Your task to perform on an android device: check battery use Image 0: 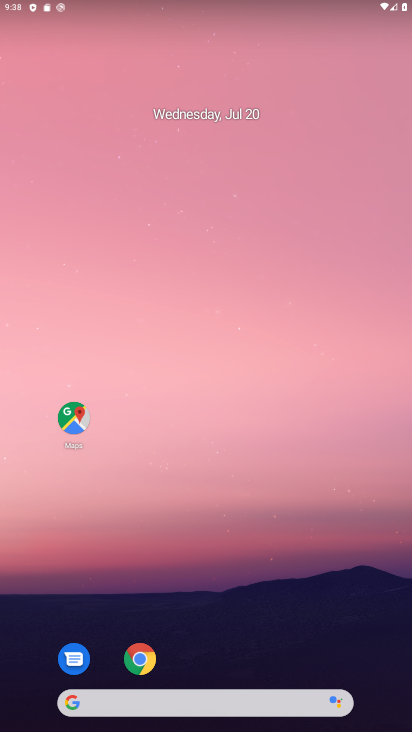
Step 0: drag from (251, 632) to (227, 163)
Your task to perform on an android device: check battery use Image 1: 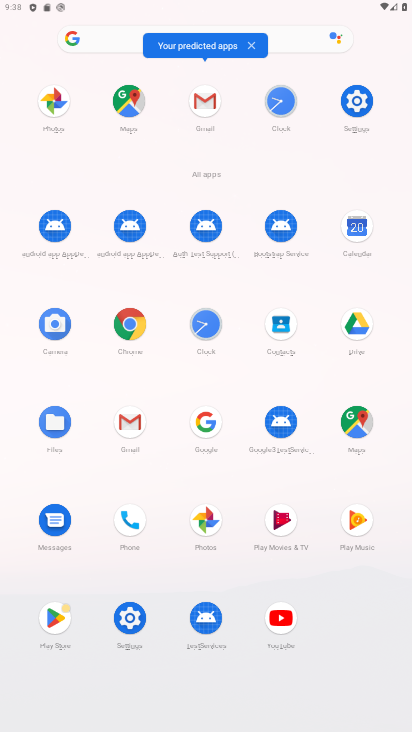
Step 1: click (355, 96)
Your task to perform on an android device: check battery use Image 2: 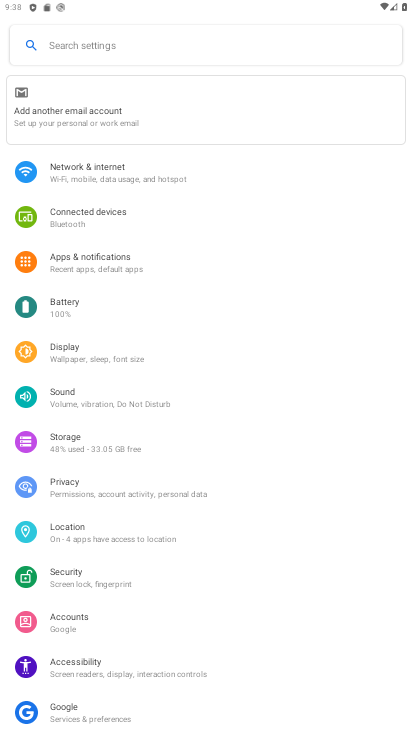
Step 2: click (89, 300)
Your task to perform on an android device: check battery use Image 3: 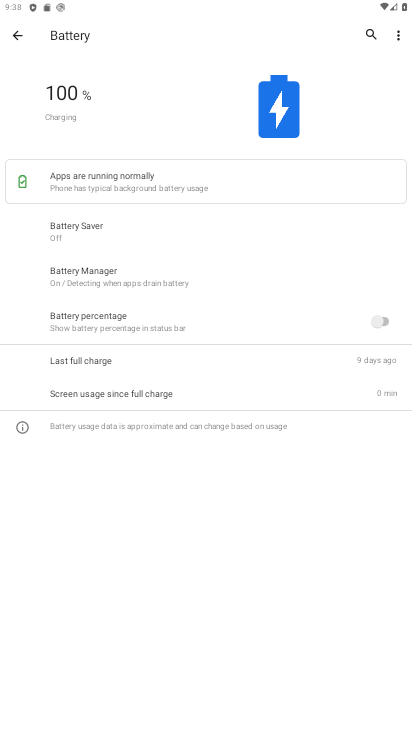
Step 3: click (396, 36)
Your task to perform on an android device: check battery use Image 4: 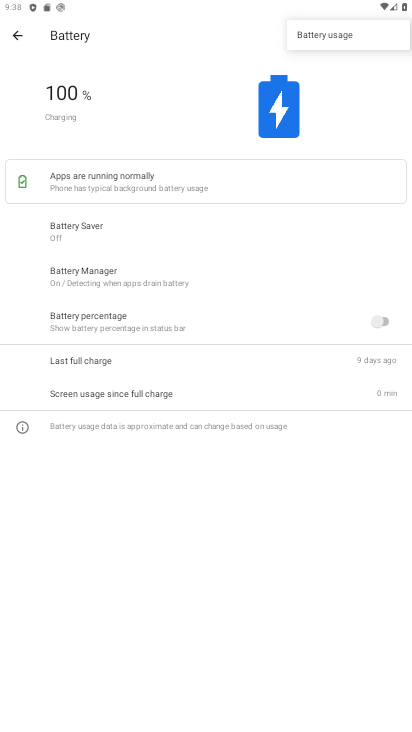
Step 4: click (342, 38)
Your task to perform on an android device: check battery use Image 5: 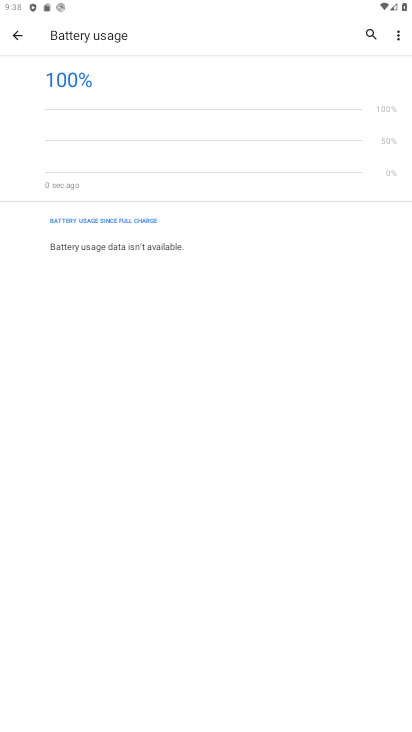
Step 5: task complete